Your task to perform on an android device: Open calendar and show me the second week of next month Image 0: 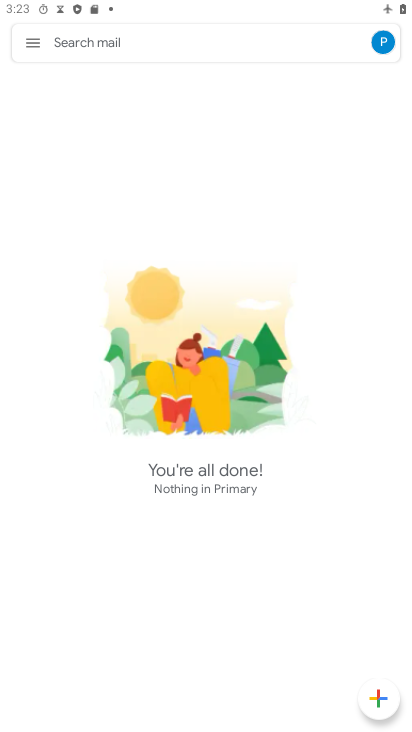
Step 0: press home button
Your task to perform on an android device: Open calendar and show me the second week of next month Image 1: 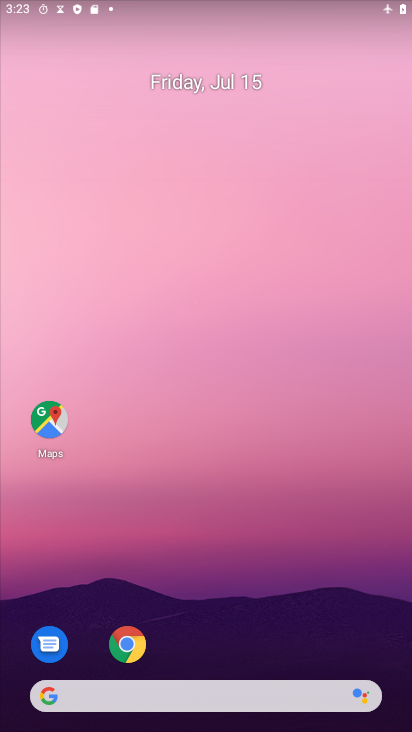
Step 1: drag from (326, 670) to (327, 180)
Your task to perform on an android device: Open calendar and show me the second week of next month Image 2: 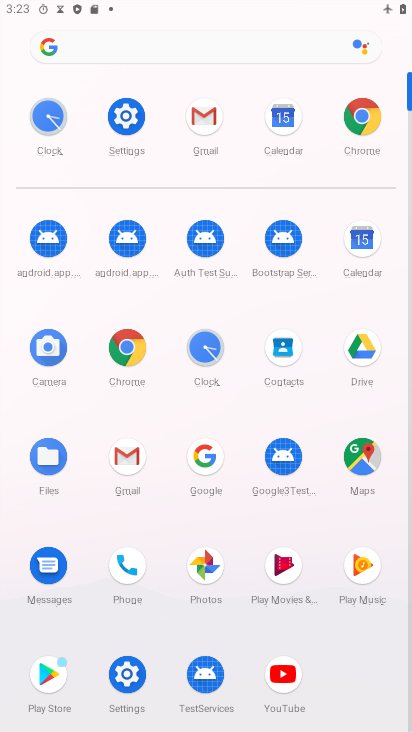
Step 2: click (370, 245)
Your task to perform on an android device: Open calendar and show me the second week of next month Image 3: 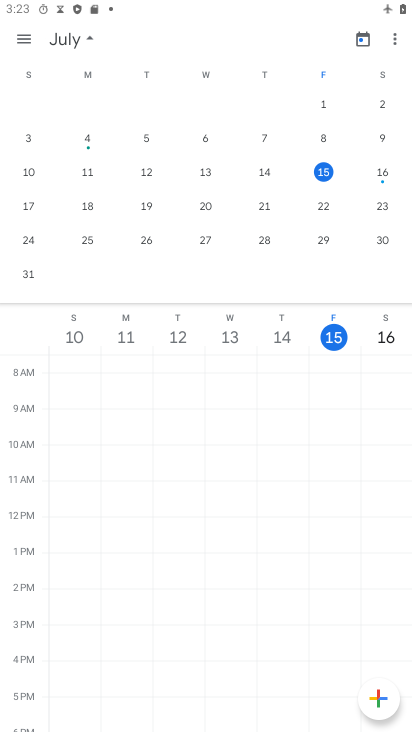
Step 3: drag from (379, 213) to (11, 257)
Your task to perform on an android device: Open calendar and show me the second week of next month Image 4: 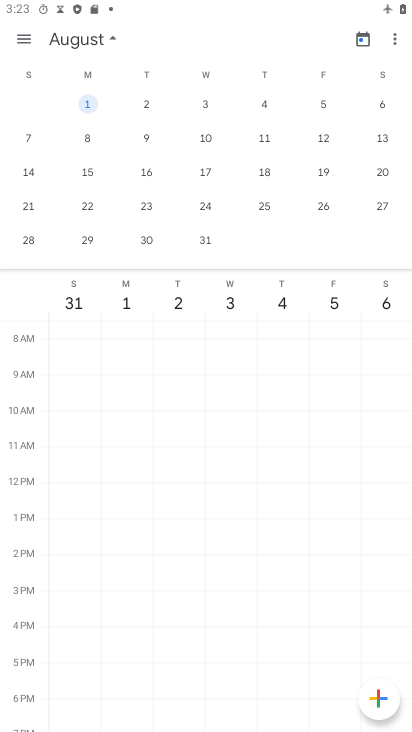
Step 4: click (208, 137)
Your task to perform on an android device: Open calendar and show me the second week of next month Image 5: 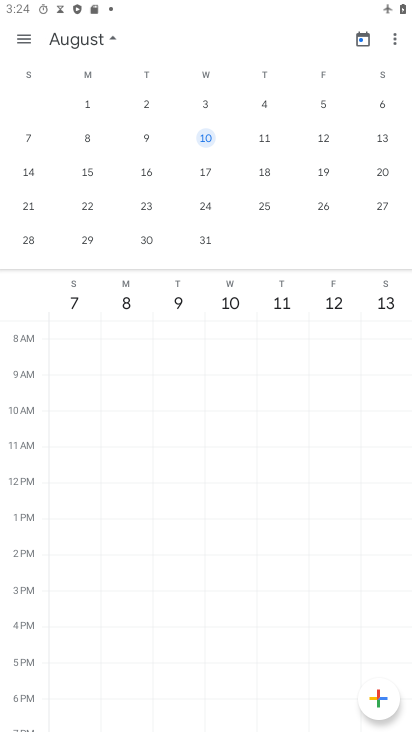
Step 5: task complete